Your task to perform on an android device: See recent photos Image 0: 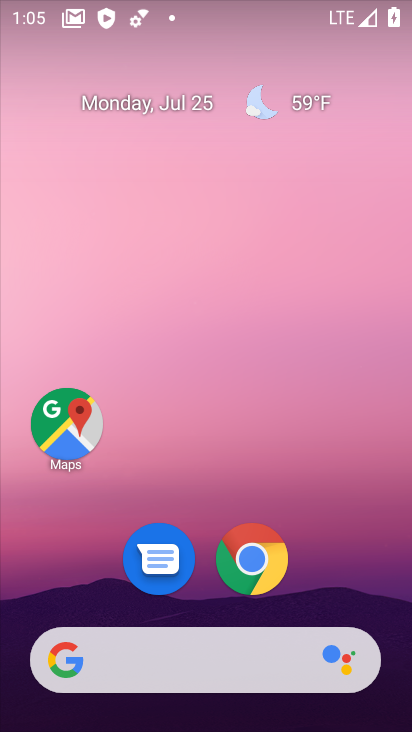
Step 0: drag from (109, 577) to (202, 11)
Your task to perform on an android device: See recent photos Image 1: 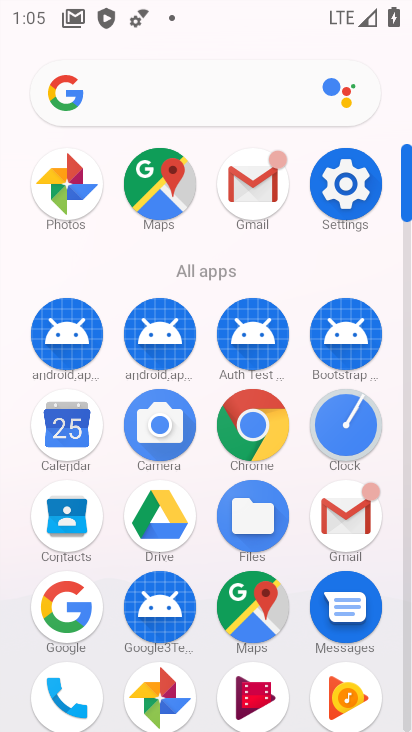
Step 1: click (155, 695)
Your task to perform on an android device: See recent photos Image 2: 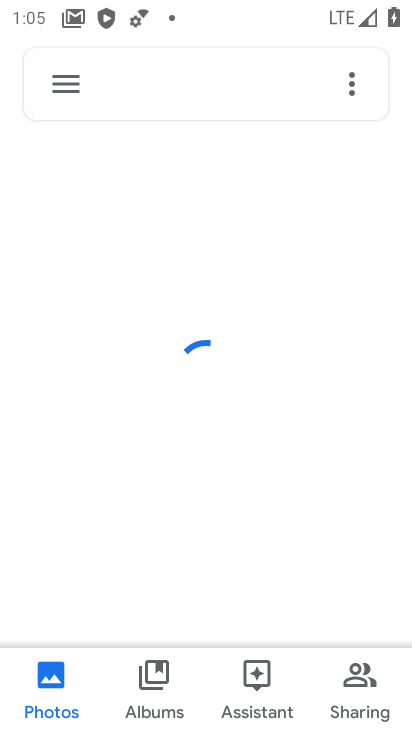
Step 2: click (54, 687)
Your task to perform on an android device: See recent photos Image 3: 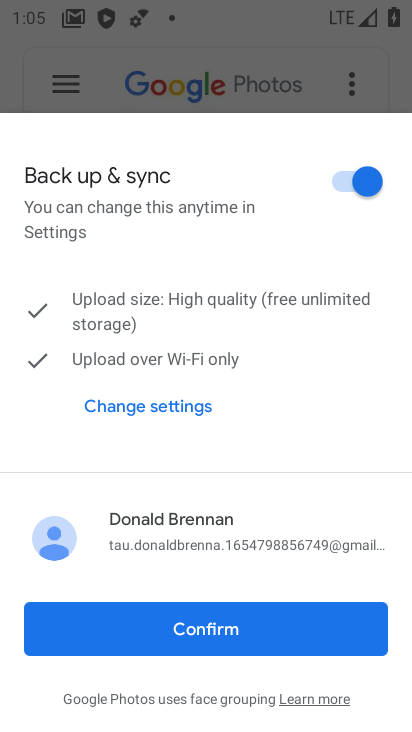
Step 3: click (186, 613)
Your task to perform on an android device: See recent photos Image 4: 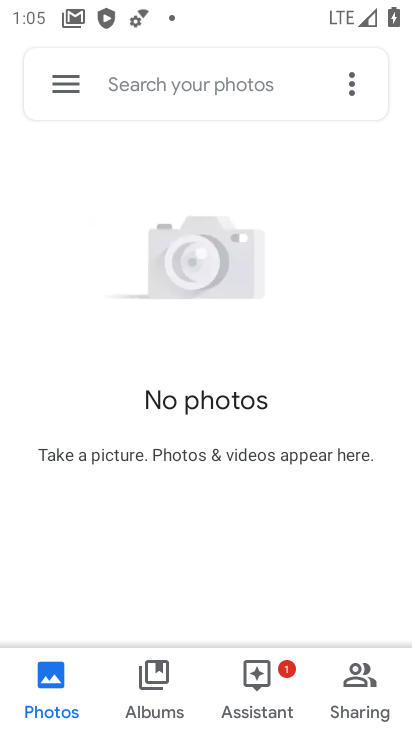
Step 4: click (54, 699)
Your task to perform on an android device: See recent photos Image 5: 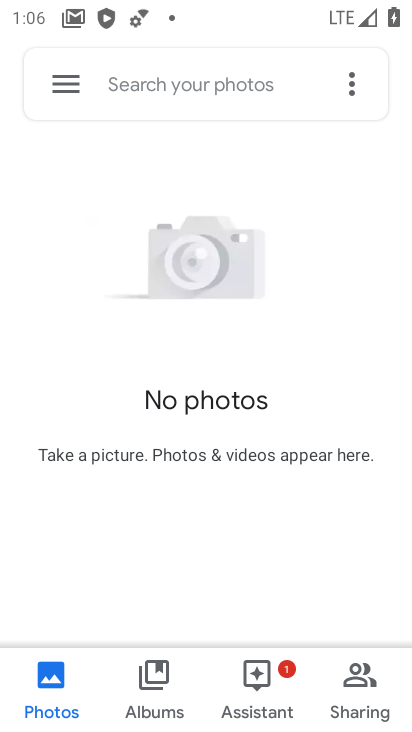
Step 5: task complete